Your task to perform on an android device: empty trash in google photos Image 0: 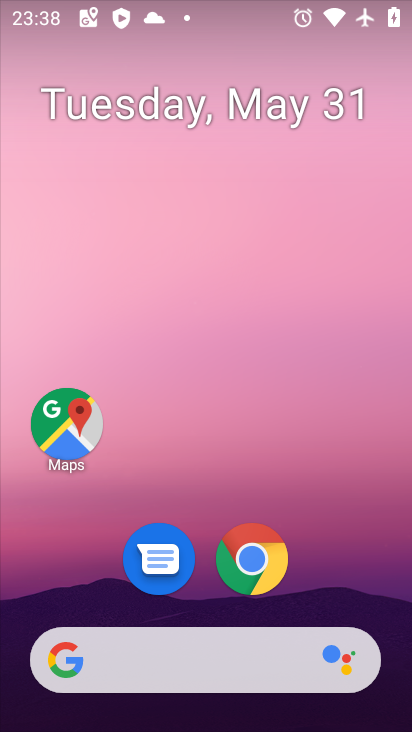
Step 0: drag from (322, 560) to (282, 106)
Your task to perform on an android device: empty trash in google photos Image 1: 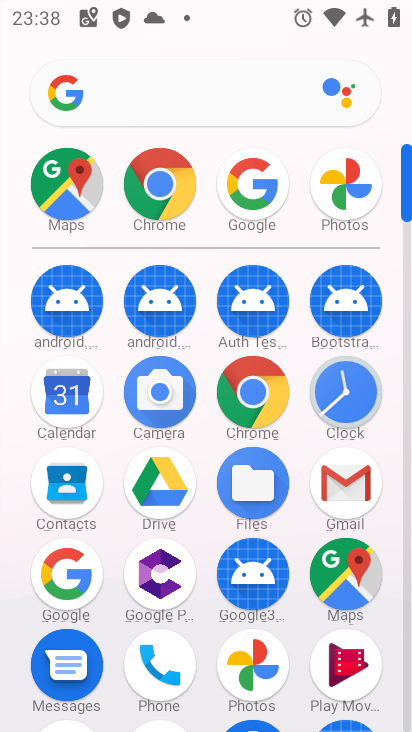
Step 1: click (346, 186)
Your task to perform on an android device: empty trash in google photos Image 2: 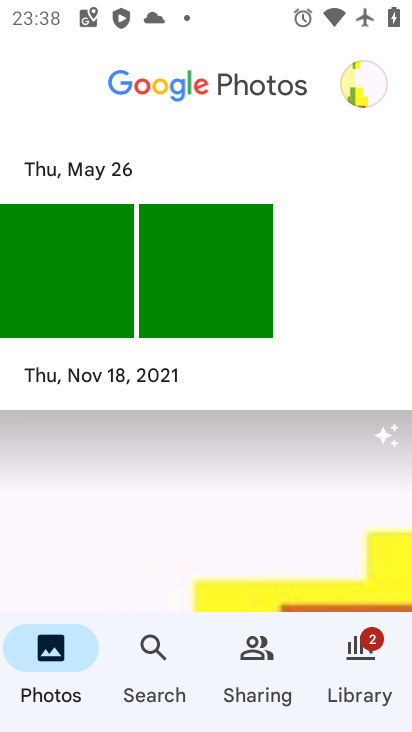
Step 2: click (381, 664)
Your task to perform on an android device: empty trash in google photos Image 3: 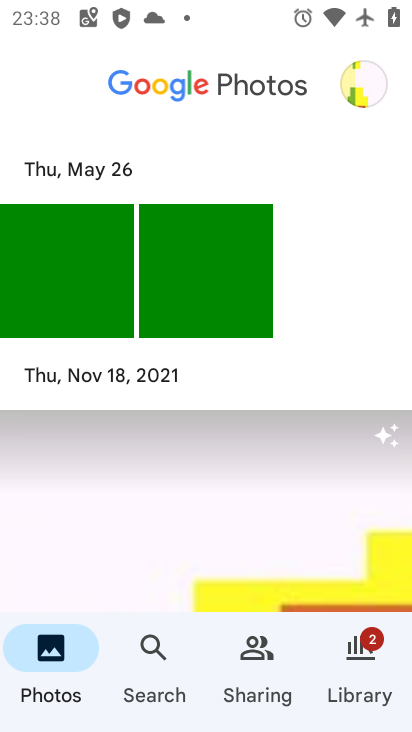
Step 3: click (350, 665)
Your task to perform on an android device: empty trash in google photos Image 4: 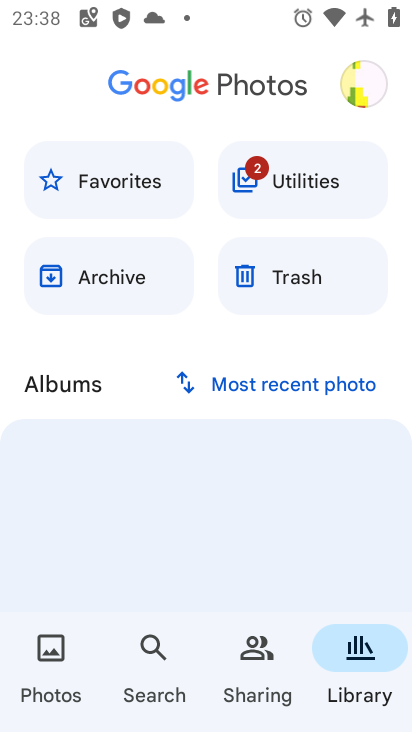
Step 4: click (293, 275)
Your task to perform on an android device: empty trash in google photos Image 5: 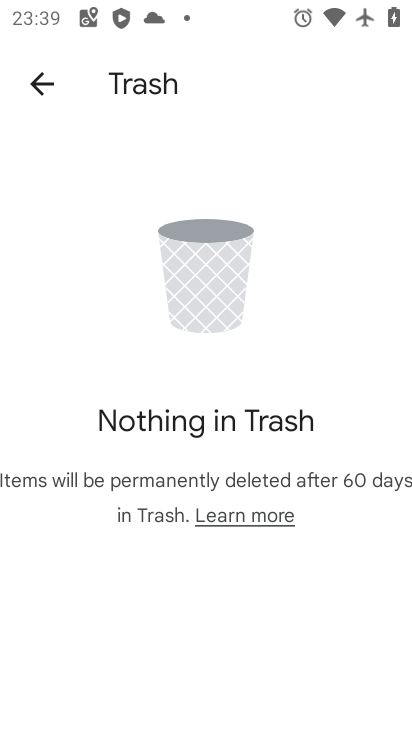
Step 5: task complete